Your task to perform on an android device: Open the map Image 0: 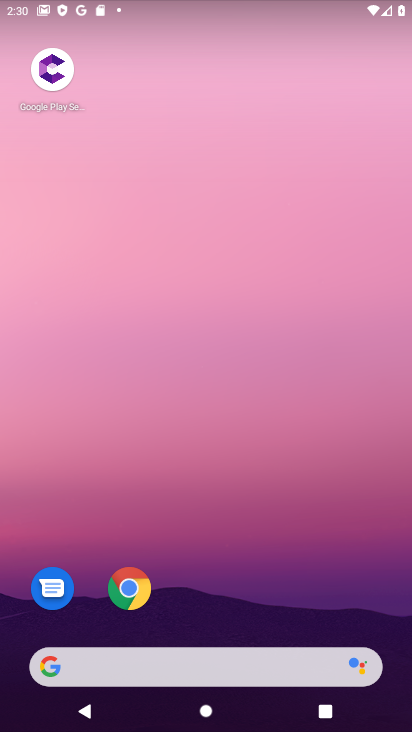
Step 0: drag from (397, 699) to (339, 154)
Your task to perform on an android device: Open the map Image 1: 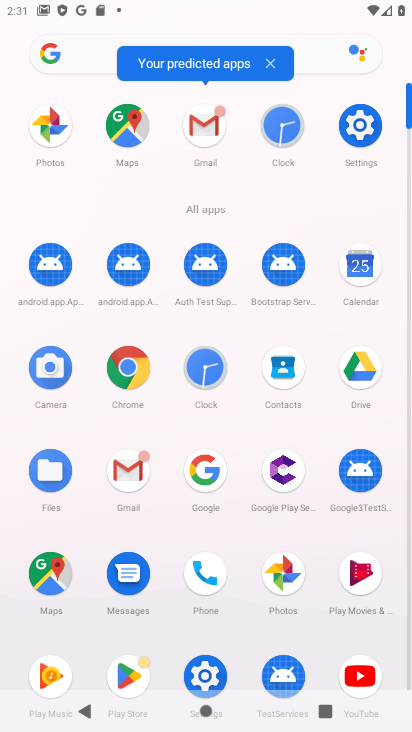
Step 1: click (43, 586)
Your task to perform on an android device: Open the map Image 2: 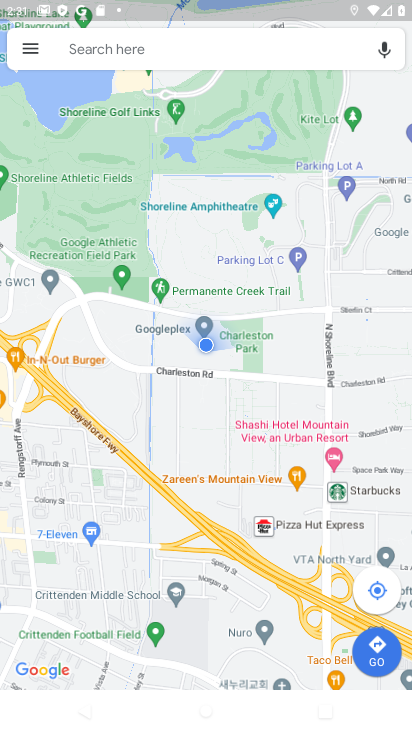
Step 2: task complete